Your task to perform on an android device: Open Chrome and go to settings Image 0: 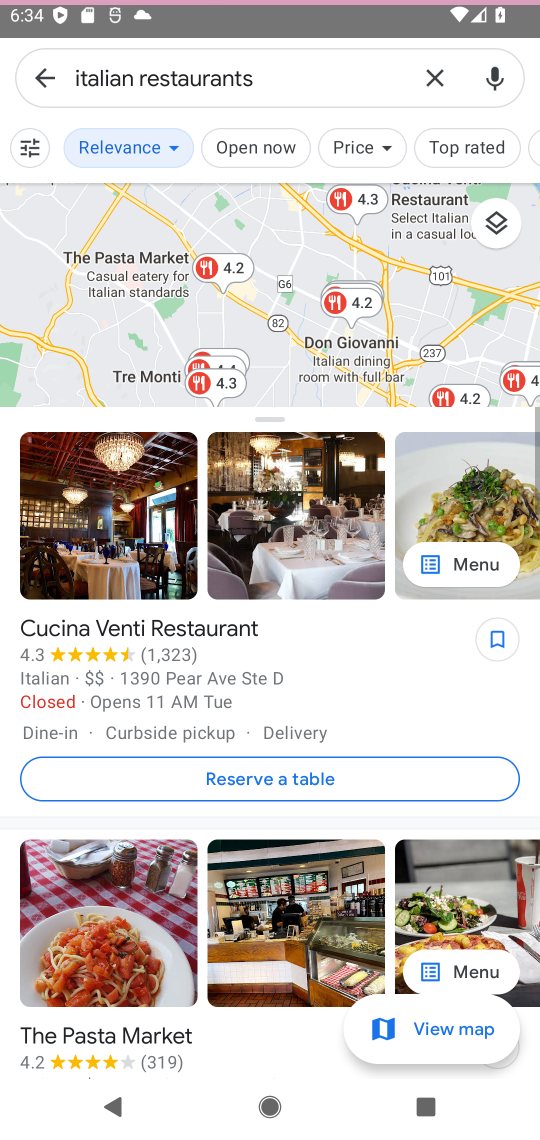
Step 0: press home button
Your task to perform on an android device: Open Chrome and go to settings Image 1: 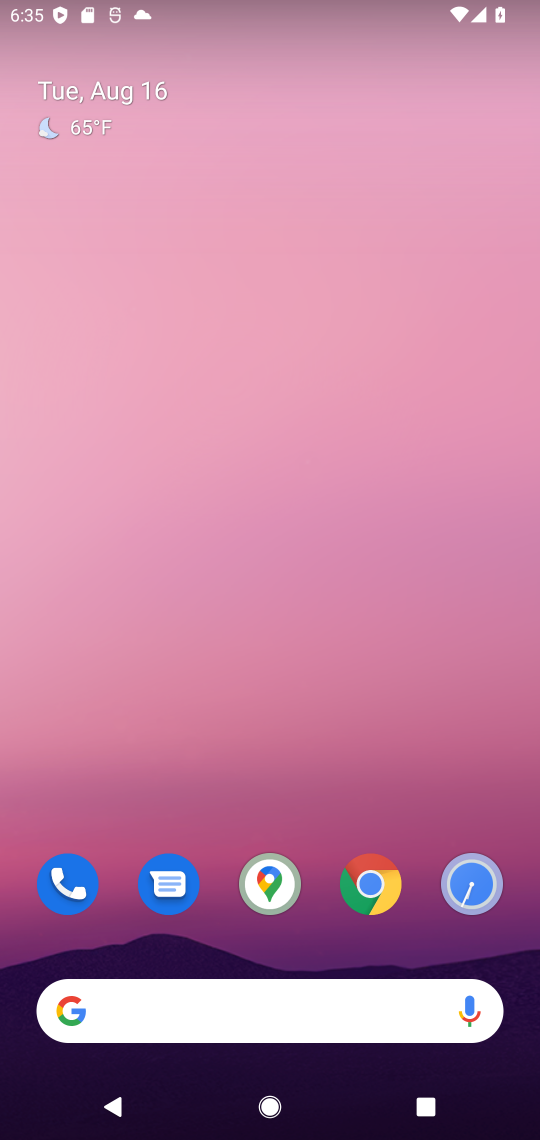
Step 1: click (377, 894)
Your task to perform on an android device: Open Chrome and go to settings Image 2: 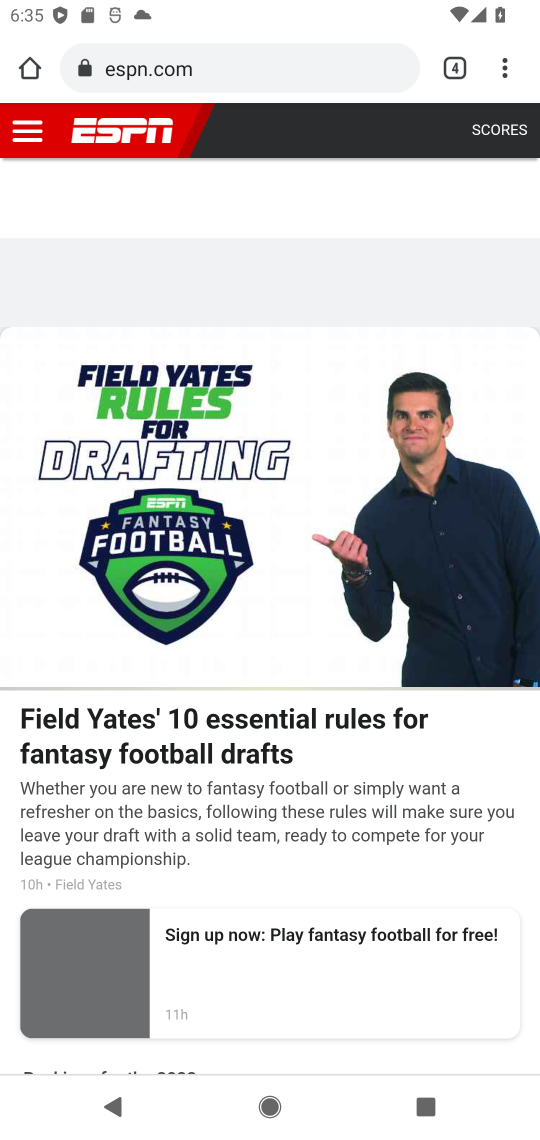
Step 2: task complete